Your task to perform on an android device: Turn on the flashlight Image 0: 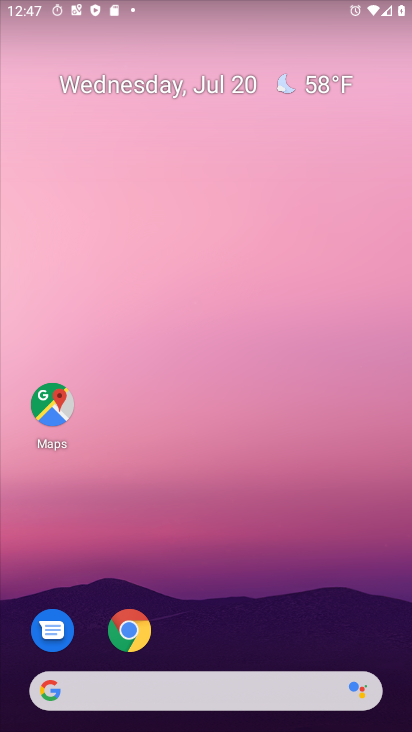
Step 0: press home button
Your task to perform on an android device: Turn on the flashlight Image 1: 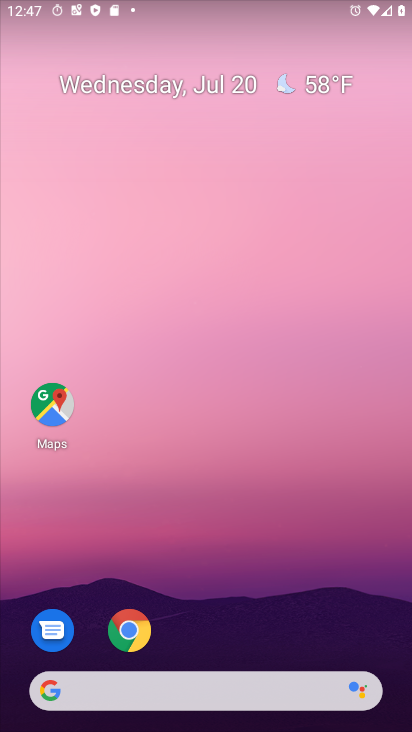
Step 1: task complete